Your task to perform on an android device: uninstall "Mercado Libre" Image 0: 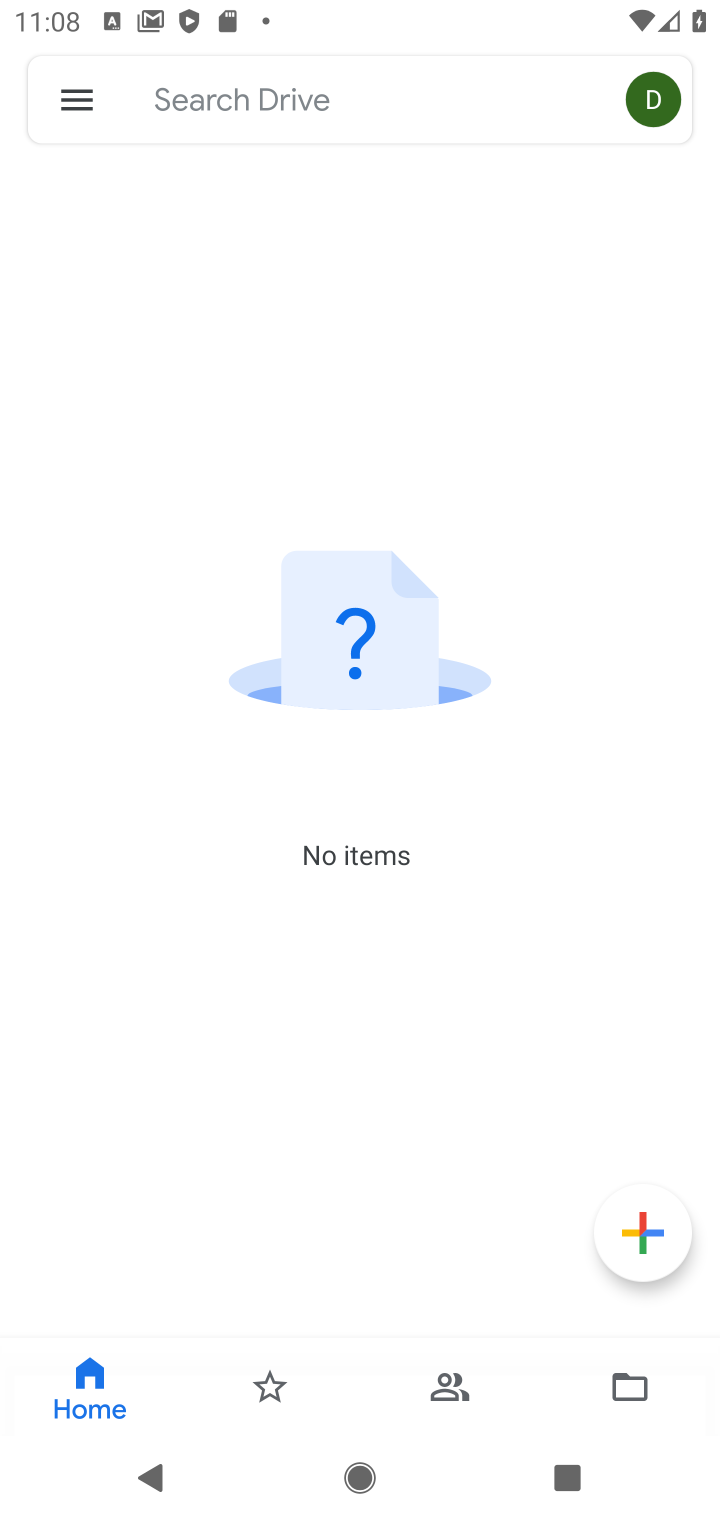
Step 0: click (281, 103)
Your task to perform on an android device: uninstall "Mercado Libre" Image 1: 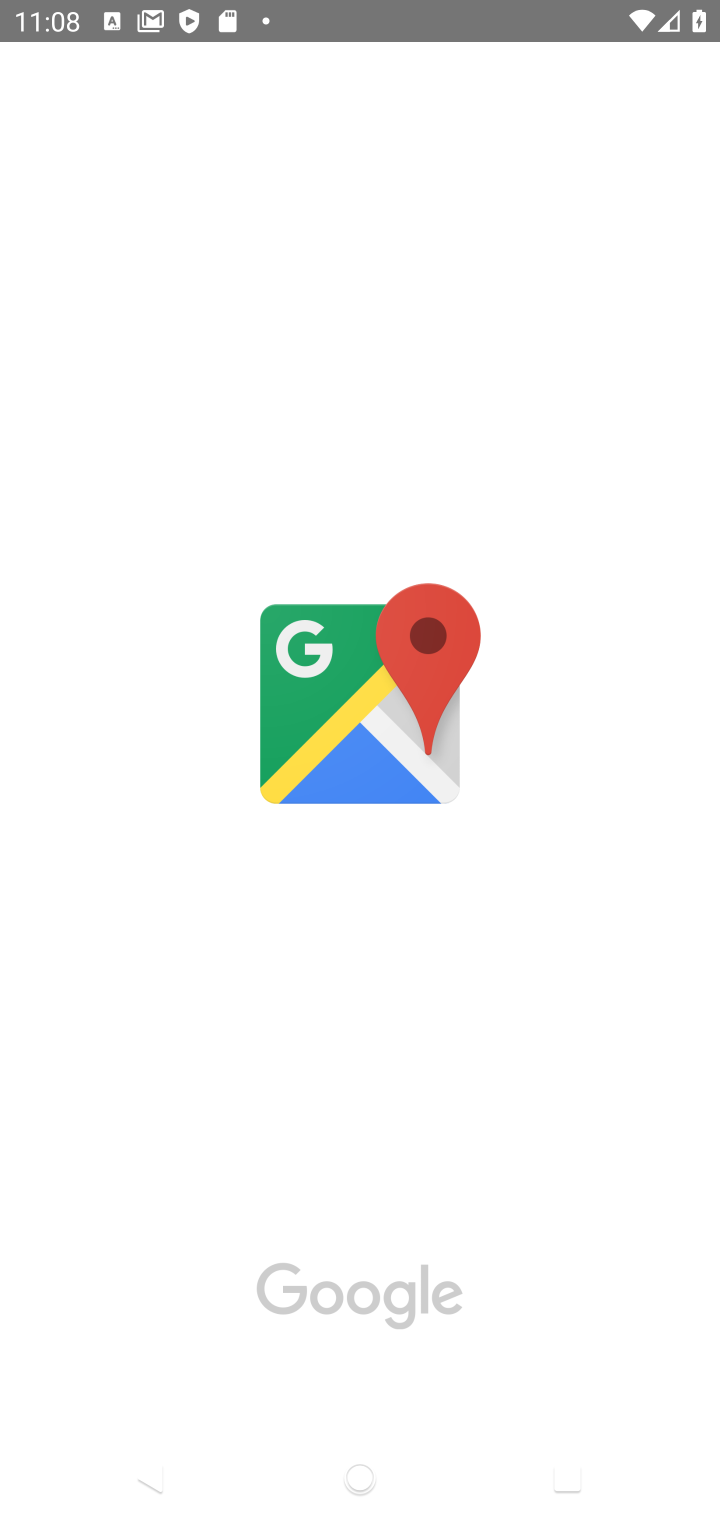
Step 1: press home button
Your task to perform on an android device: uninstall "Mercado Libre" Image 2: 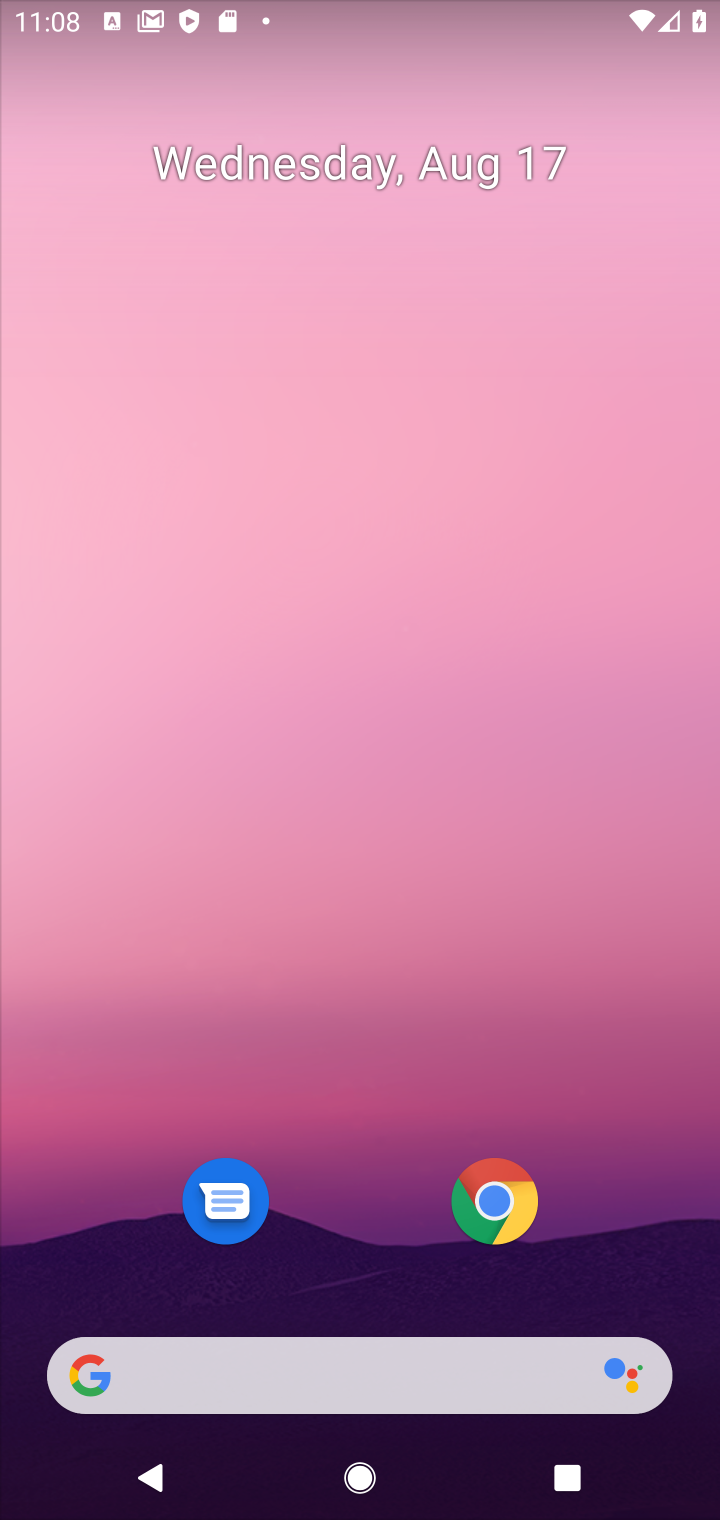
Step 2: drag from (356, 1233) to (487, 42)
Your task to perform on an android device: uninstall "Mercado Libre" Image 3: 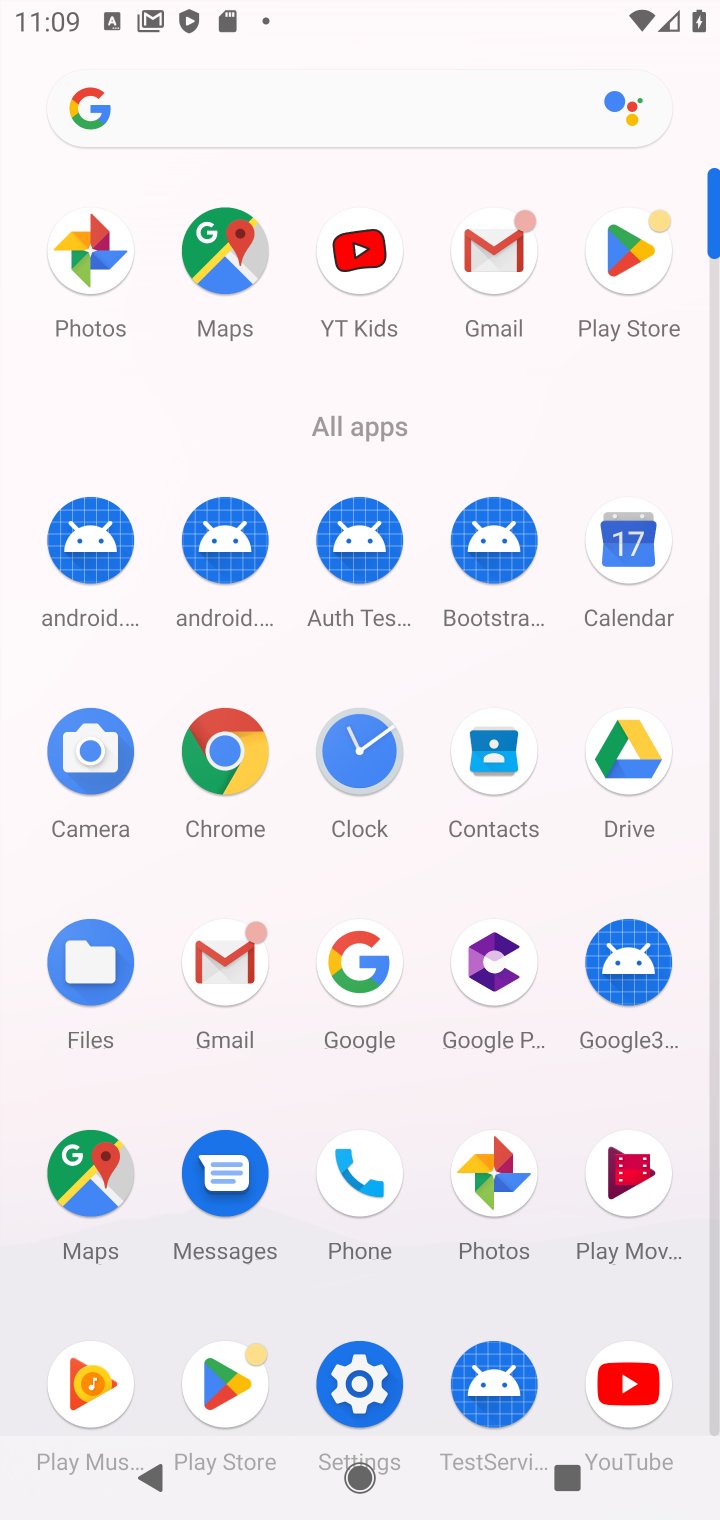
Step 3: click (627, 261)
Your task to perform on an android device: uninstall "Mercado Libre" Image 4: 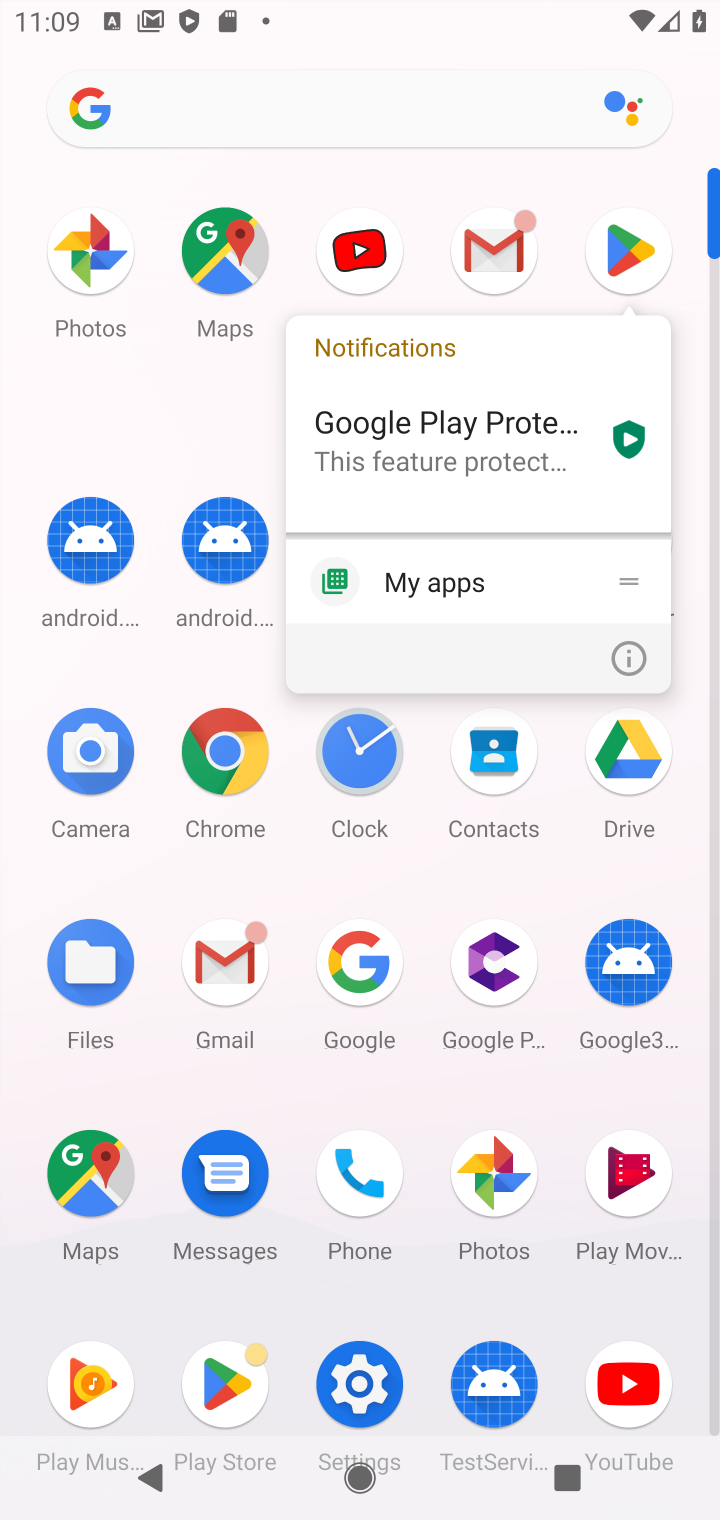
Step 4: click (606, 262)
Your task to perform on an android device: uninstall "Mercado Libre" Image 5: 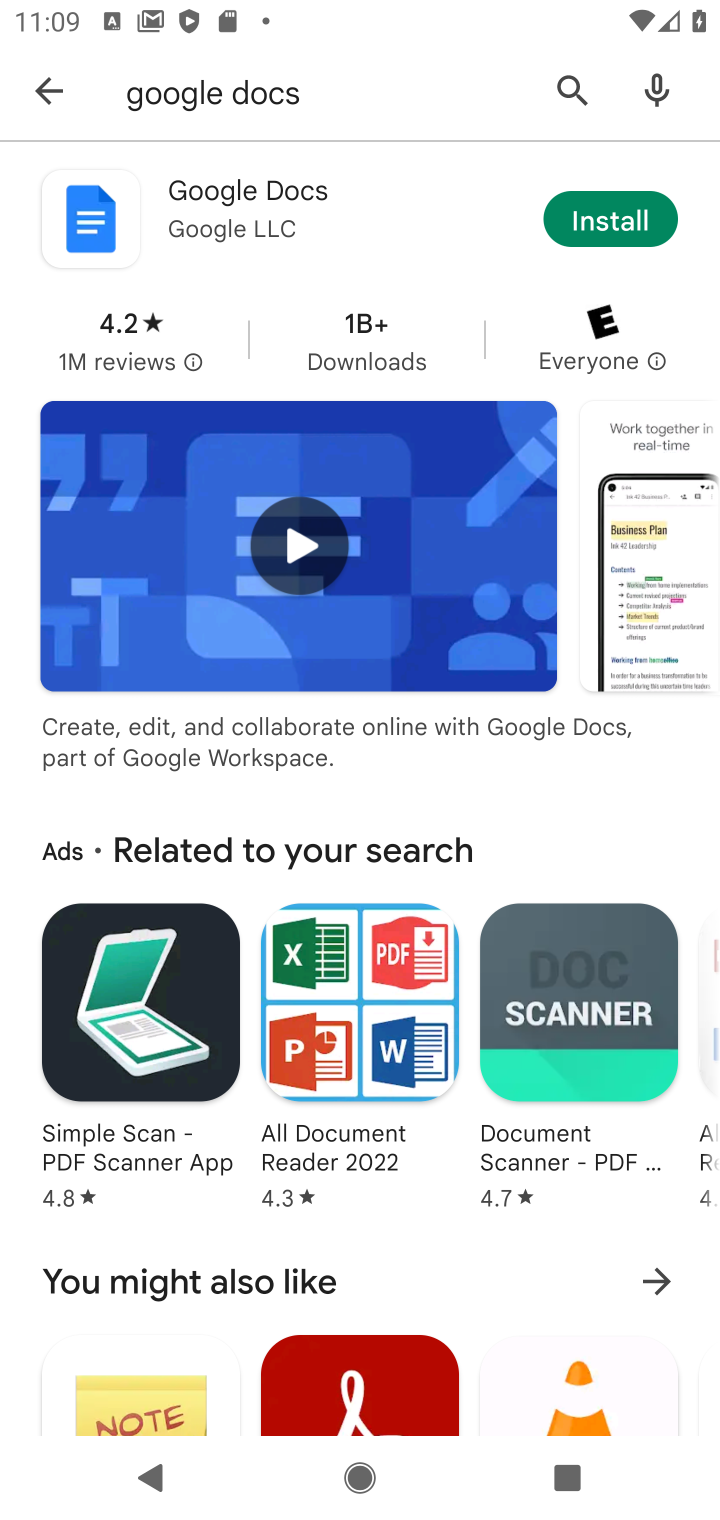
Step 5: click (326, 90)
Your task to perform on an android device: uninstall "Mercado Libre" Image 6: 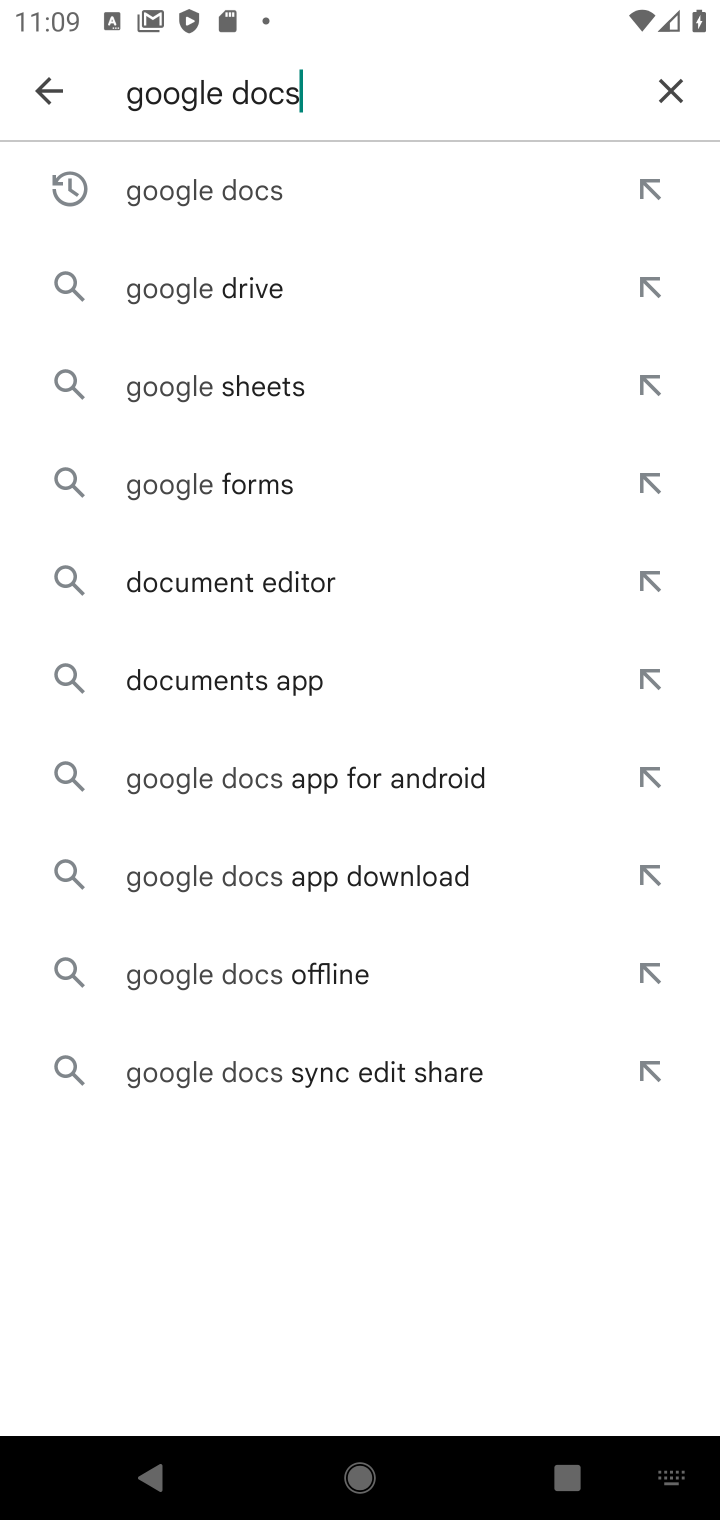
Step 6: click (678, 91)
Your task to perform on an android device: uninstall "Mercado Libre" Image 7: 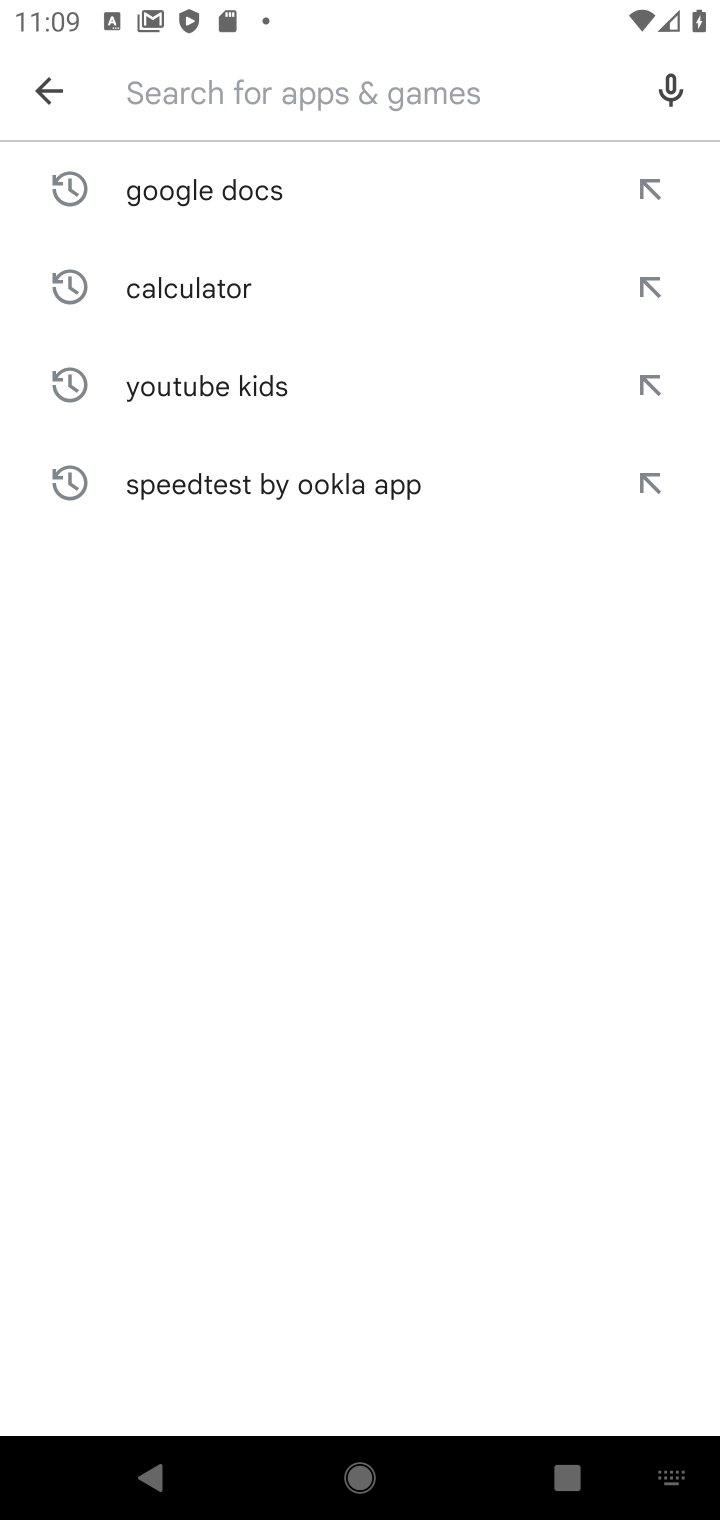
Step 7: type "mercado libre"
Your task to perform on an android device: uninstall "Mercado Libre" Image 8: 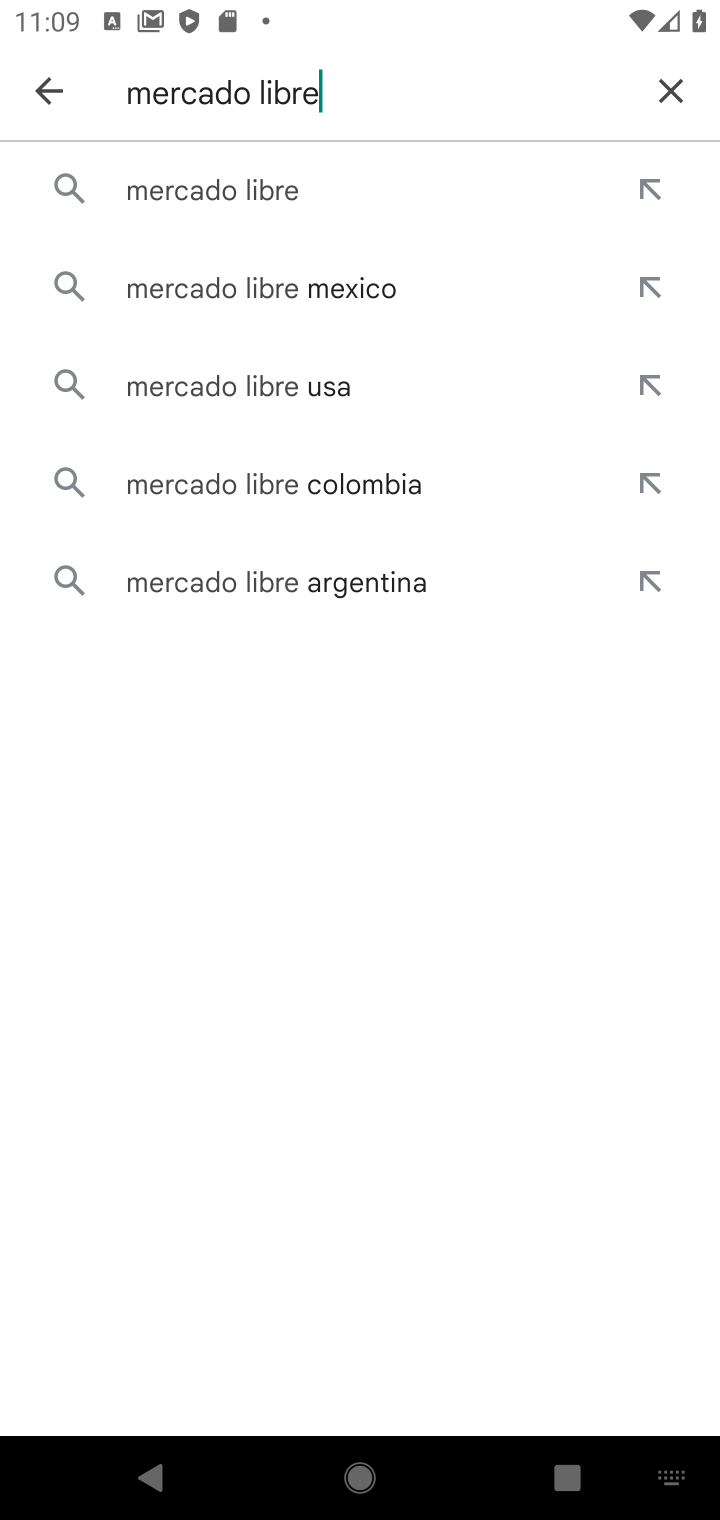
Step 8: click (281, 183)
Your task to perform on an android device: uninstall "Mercado Libre" Image 9: 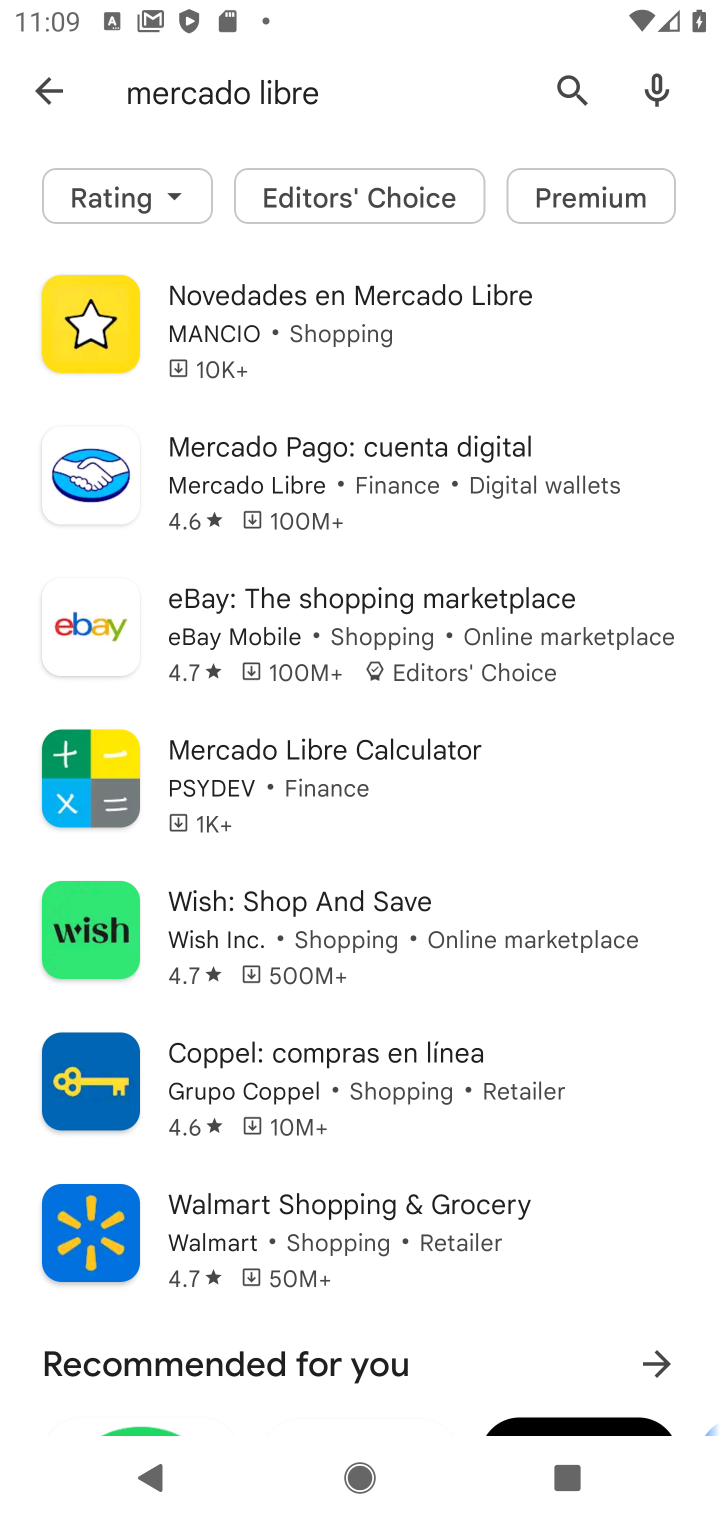
Step 9: task complete